Your task to perform on an android device: Open display settings Image 0: 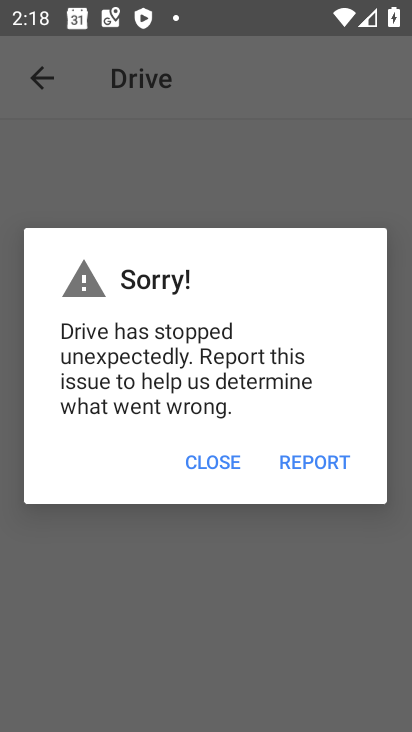
Step 0: press home button
Your task to perform on an android device: Open display settings Image 1: 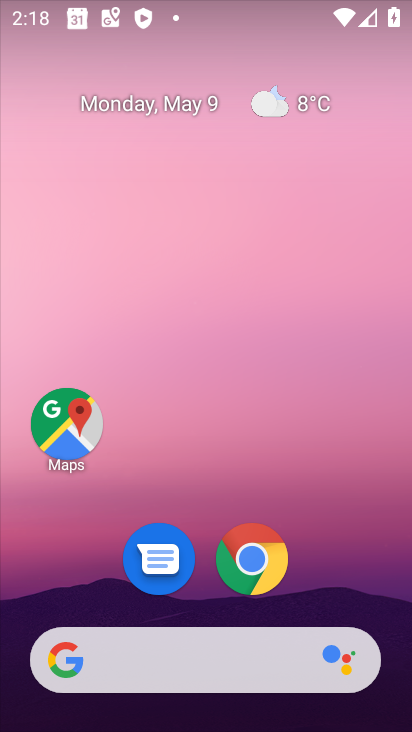
Step 1: drag from (332, 523) to (152, 120)
Your task to perform on an android device: Open display settings Image 2: 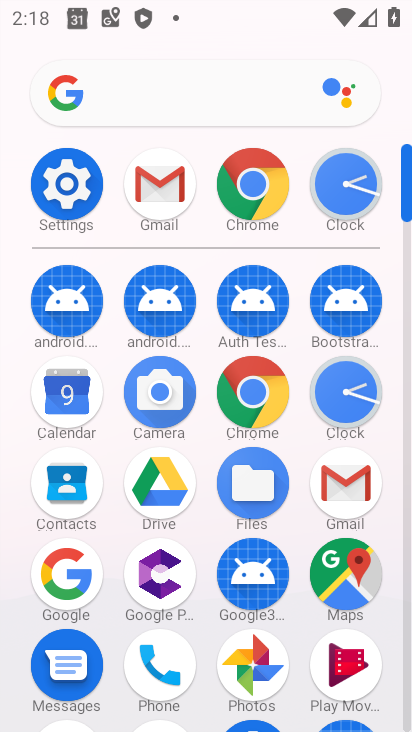
Step 2: click (71, 182)
Your task to perform on an android device: Open display settings Image 3: 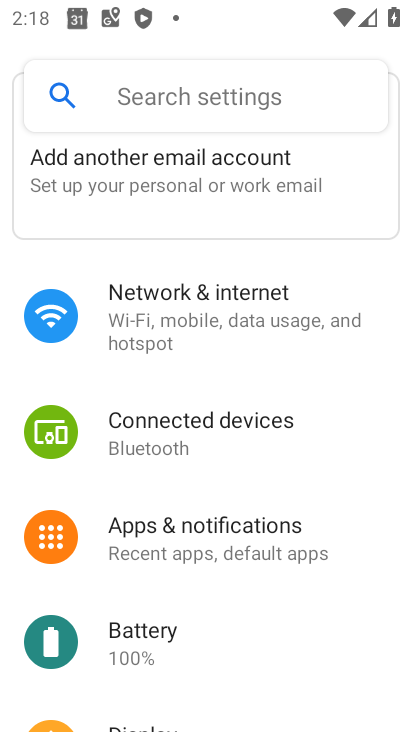
Step 3: click (102, 258)
Your task to perform on an android device: Open display settings Image 4: 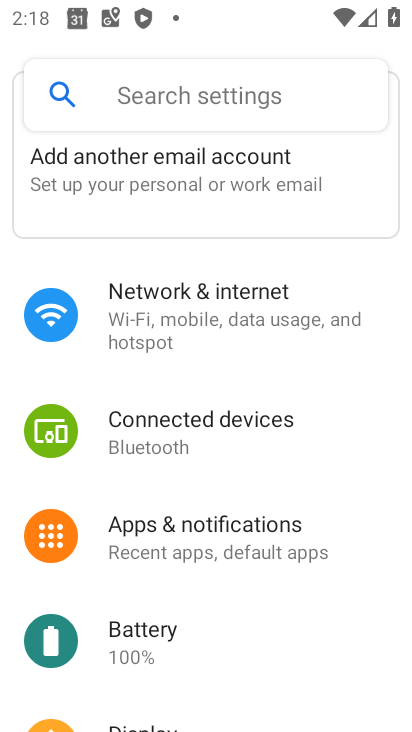
Step 4: drag from (194, 603) to (305, 155)
Your task to perform on an android device: Open display settings Image 5: 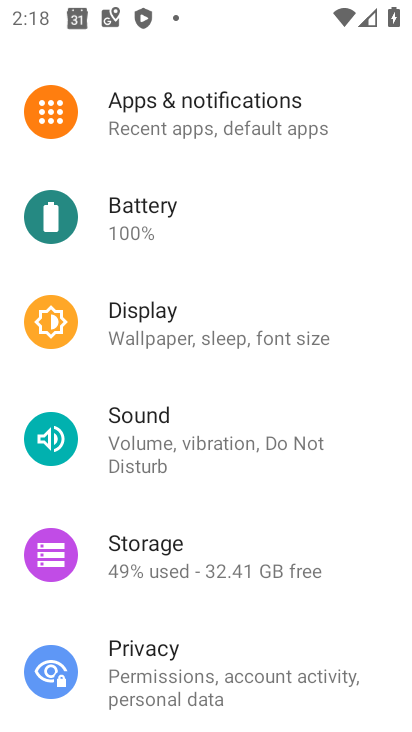
Step 5: click (134, 311)
Your task to perform on an android device: Open display settings Image 6: 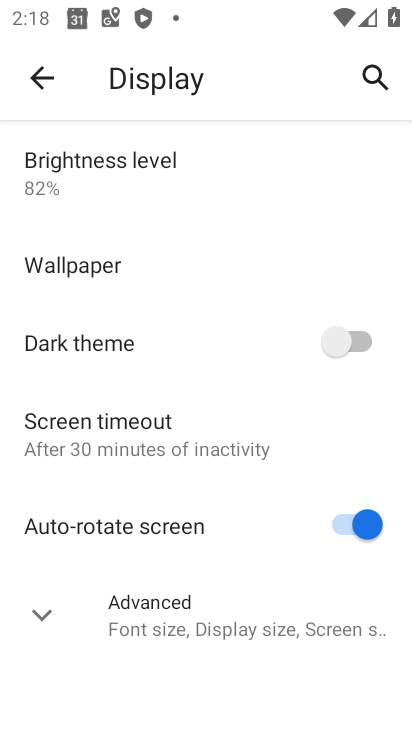
Step 6: task complete